Your task to perform on an android device: change keyboard looks Image 0: 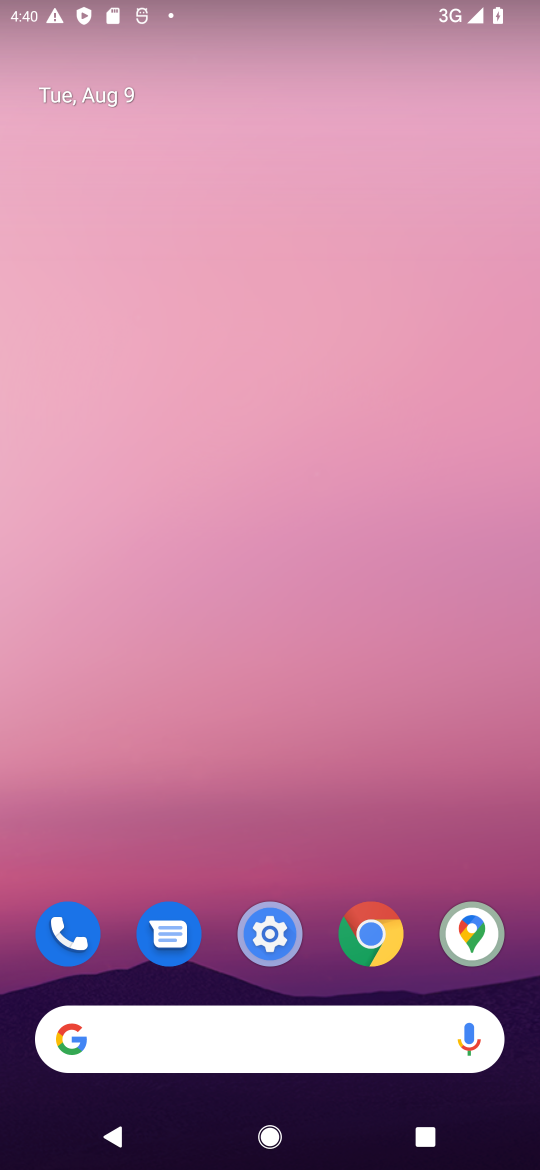
Step 0: click (285, 949)
Your task to perform on an android device: change keyboard looks Image 1: 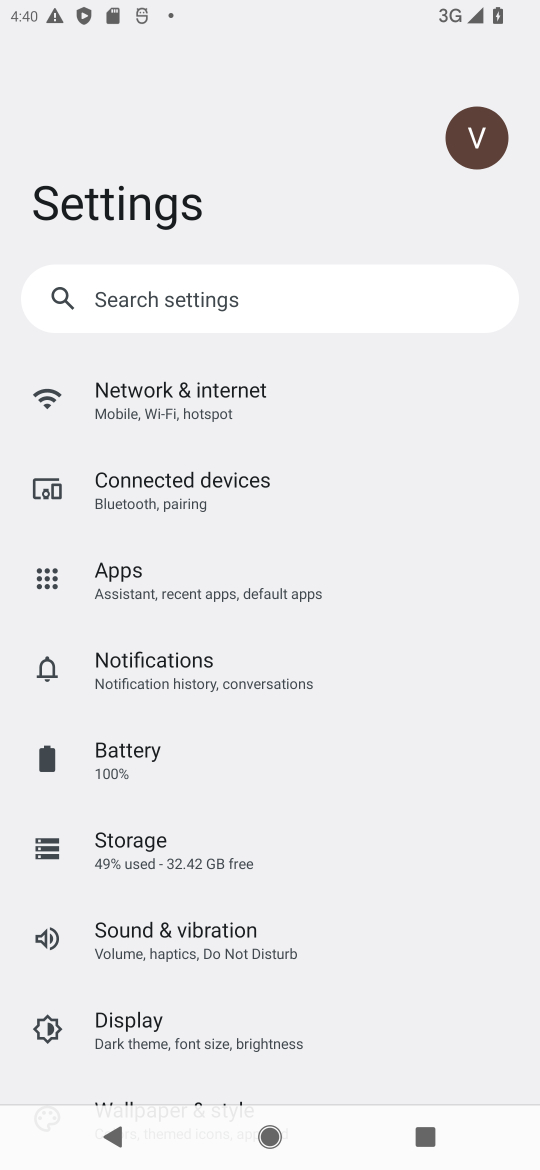
Step 1: drag from (154, 1031) to (191, 305)
Your task to perform on an android device: change keyboard looks Image 2: 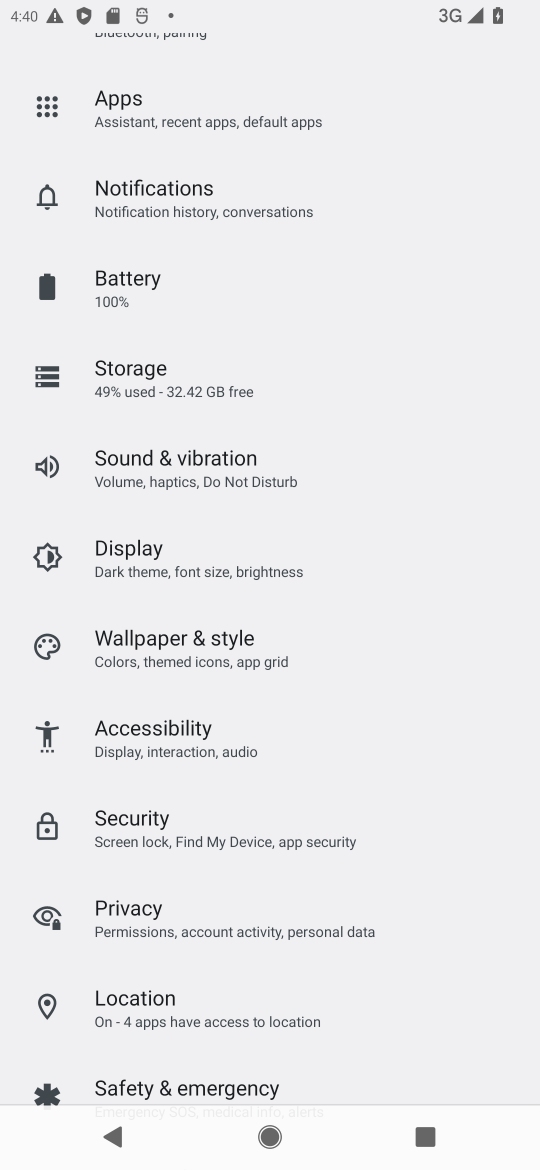
Step 2: drag from (301, 1063) to (240, 373)
Your task to perform on an android device: change keyboard looks Image 3: 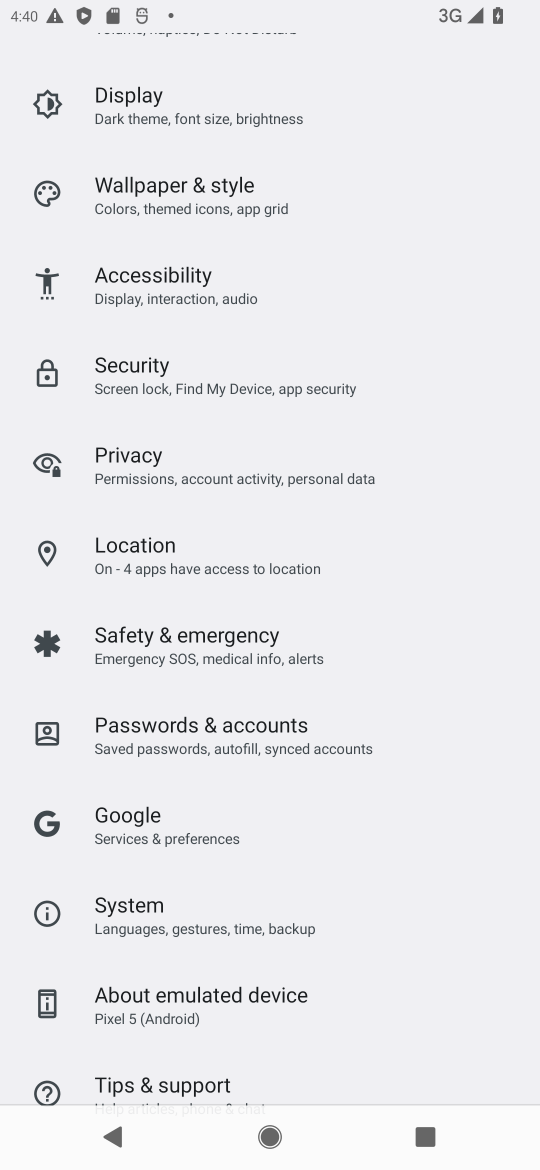
Step 3: drag from (224, 1013) to (297, 337)
Your task to perform on an android device: change keyboard looks Image 4: 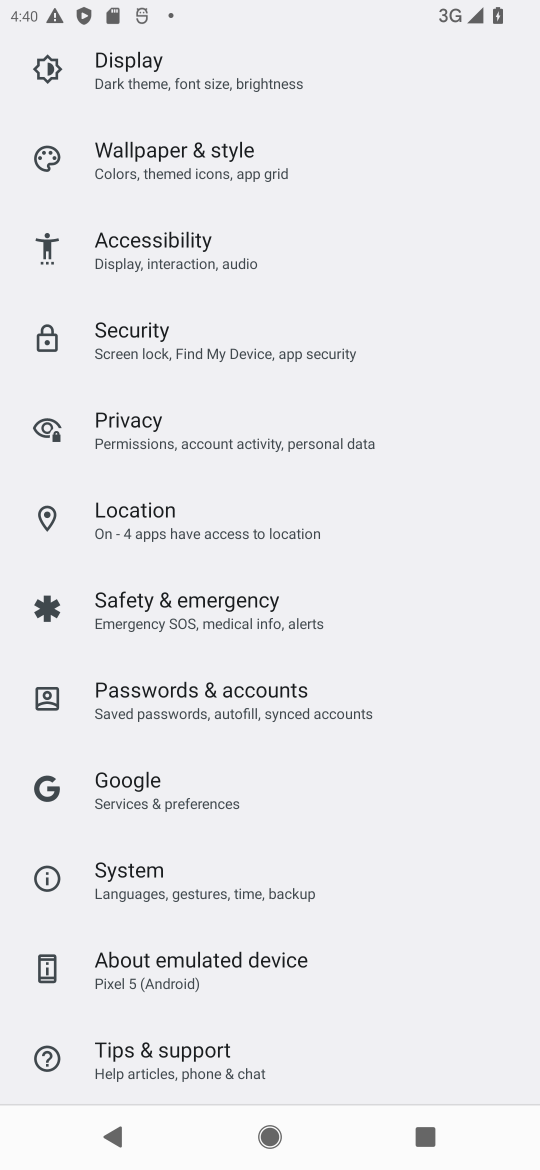
Step 4: click (279, 878)
Your task to perform on an android device: change keyboard looks Image 5: 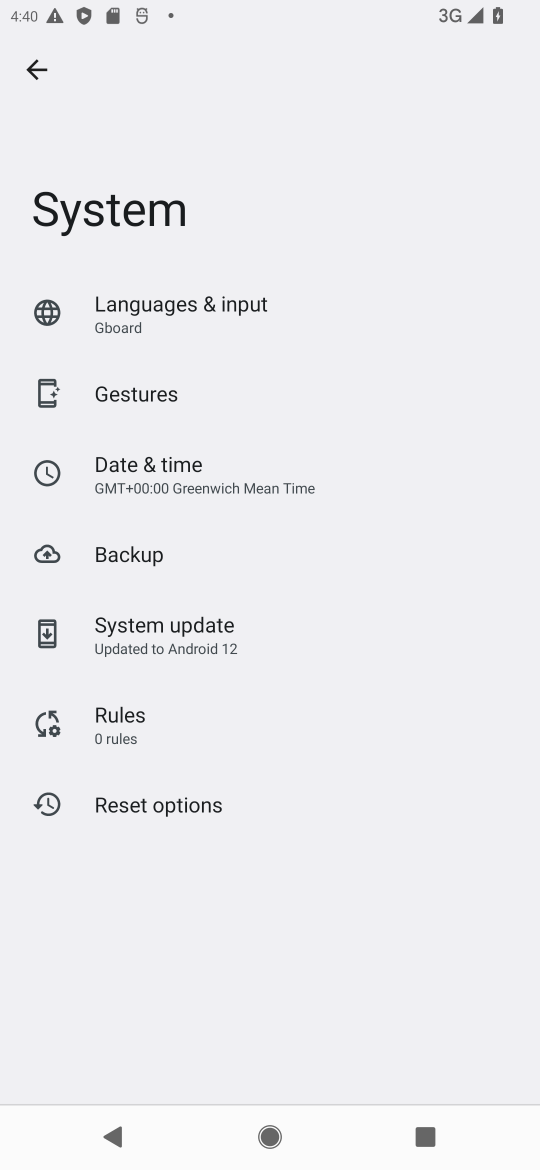
Step 5: click (166, 322)
Your task to perform on an android device: change keyboard looks Image 6: 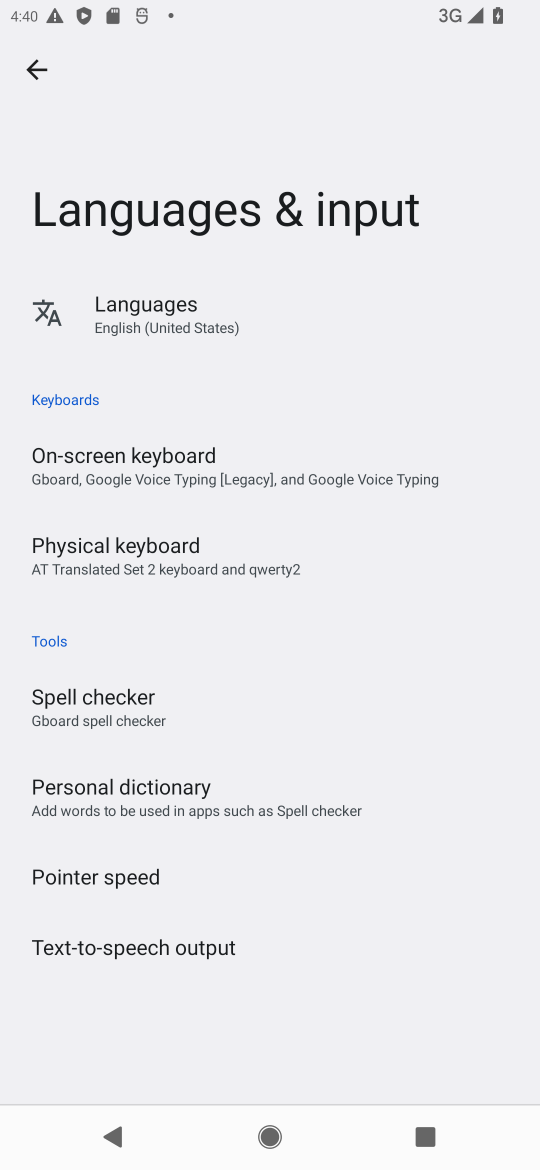
Step 6: click (185, 555)
Your task to perform on an android device: change keyboard looks Image 7: 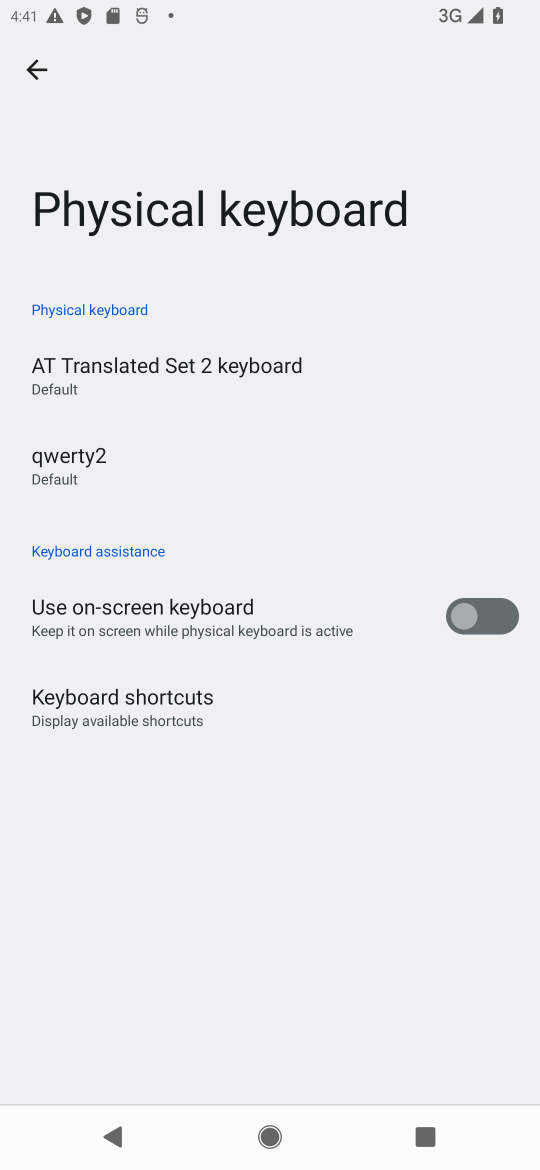
Step 7: click (134, 480)
Your task to perform on an android device: change keyboard looks Image 8: 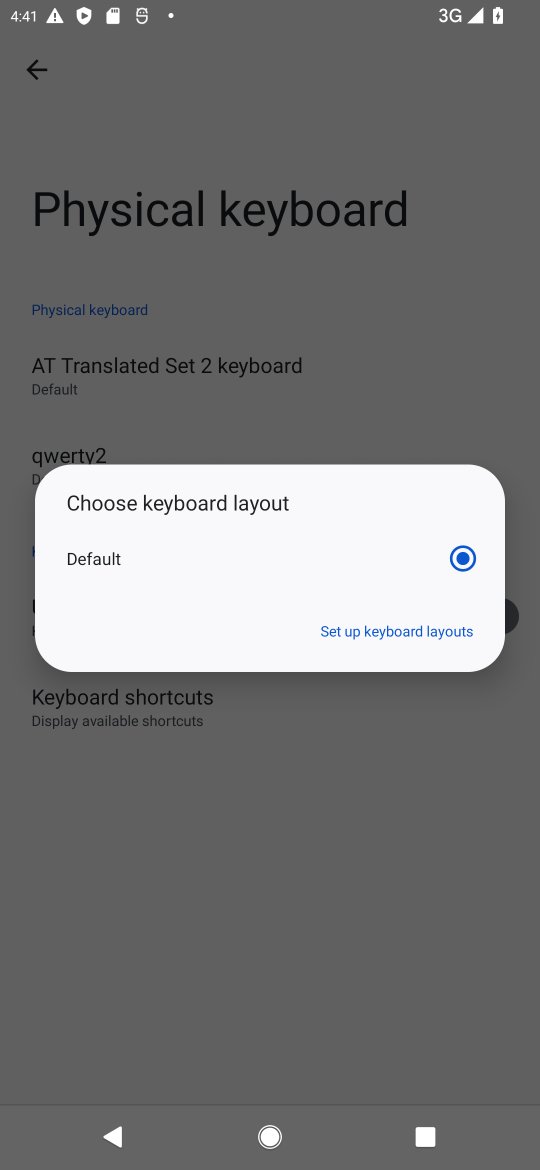
Step 8: click (349, 620)
Your task to perform on an android device: change keyboard looks Image 9: 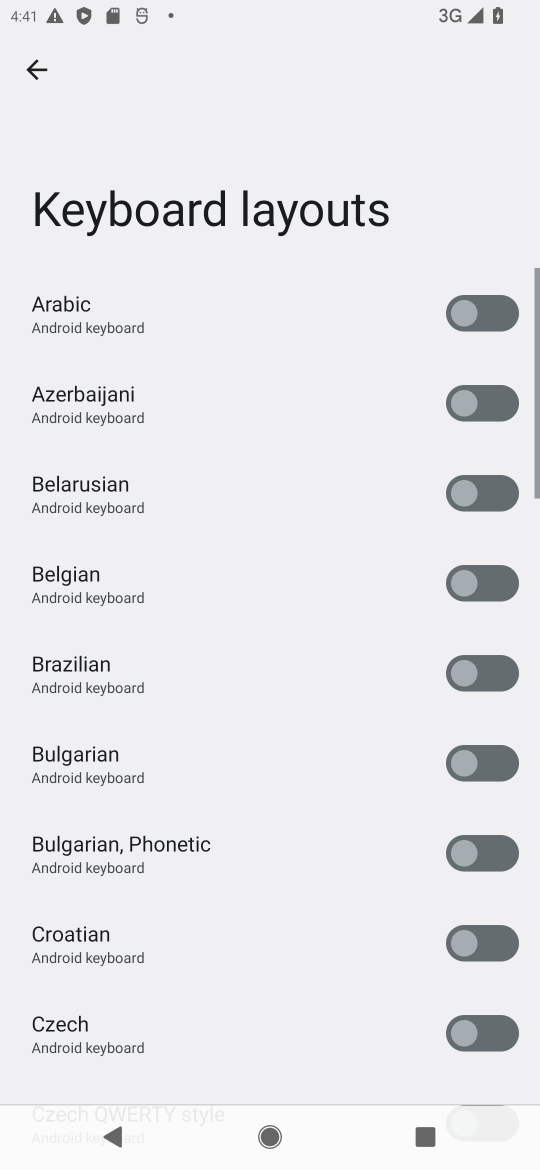
Step 9: task complete